Your task to perform on an android device: toggle pop-ups in chrome Image 0: 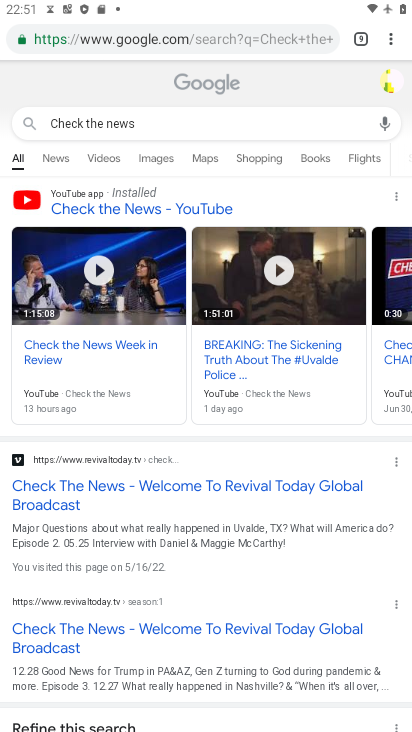
Step 0: click (393, 38)
Your task to perform on an android device: toggle pop-ups in chrome Image 1: 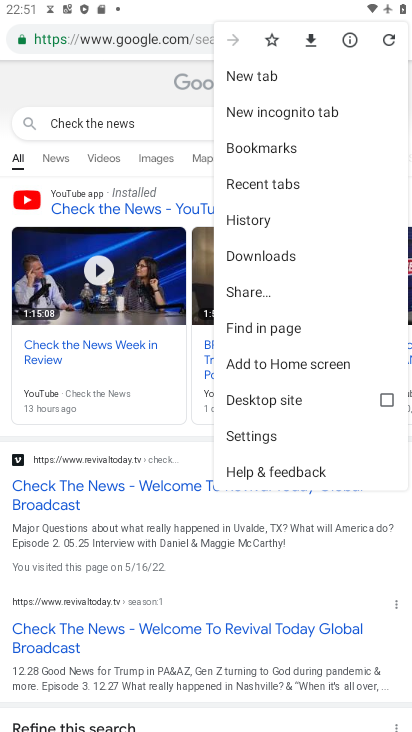
Step 1: click (278, 424)
Your task to perform on an android device: toggle pop-ups in chrome Image 2: 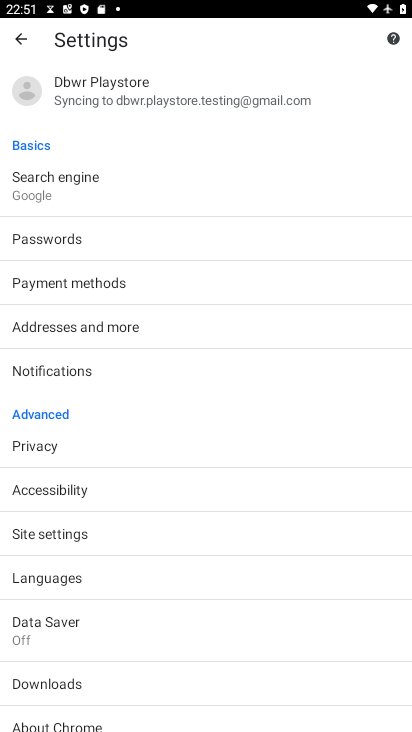
Step 2: click (124, 524)
Your task to perform on an android device: toggle pop-ups in chrome Image 3: 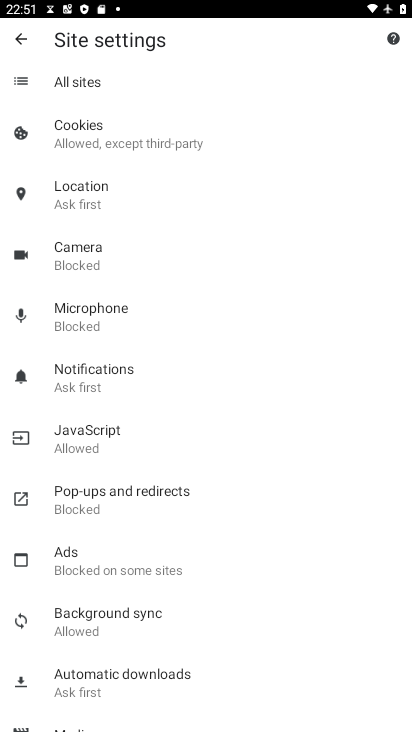
Step 3: click (141, 490)
Your task to perform on an android device: toggle pop-ups in chrome Image 4: 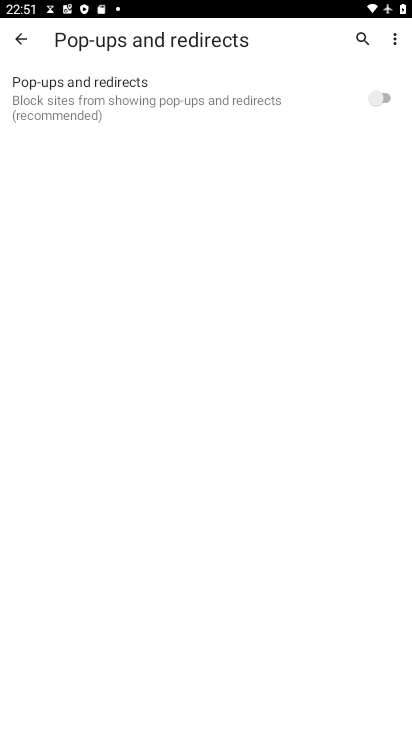
Step 4: task complete